Your task to perform on an android device: What's on my calendar tomorrow? Image 0: 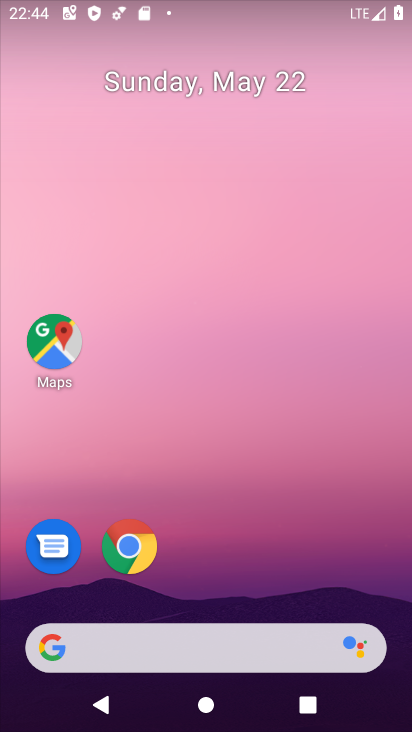
Step 0: drag from (256, 306) to (281, 72)
Your task to perform on an android device: What's on my calendar tomorrow? Image 1: 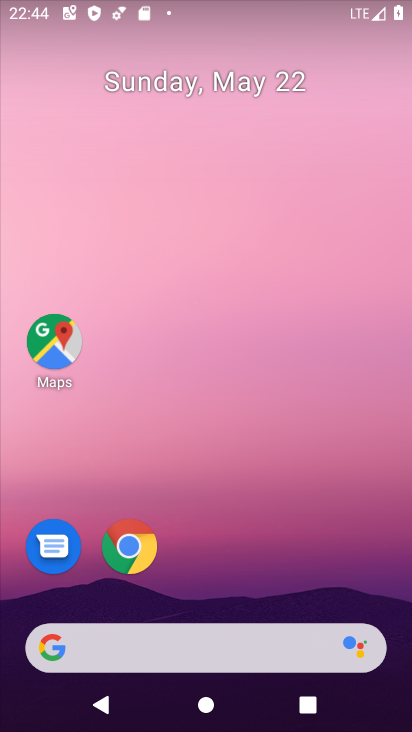
Step 1: drag from (193, 605) to (199, 151)
Your task to perform on an android device: What's on my calendar tomorrow? Image 2: 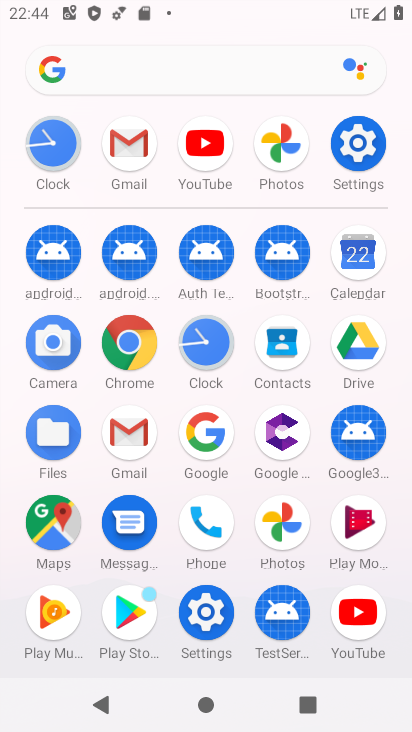
Step 2: click (355, 264)
Your task to perform on an android device: What's on my calendar tomorrow? Image 3: 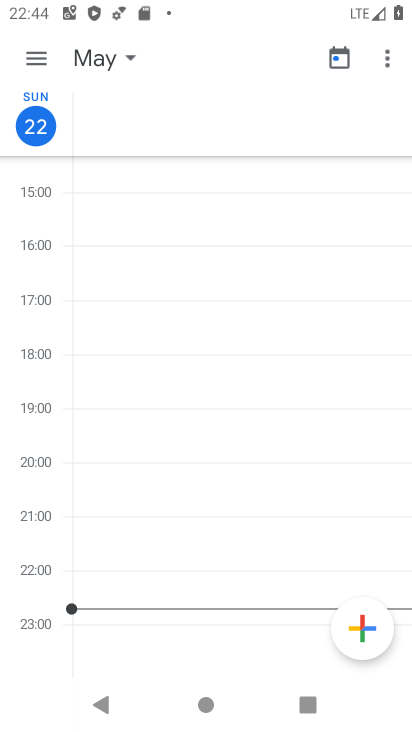
Step 3: click (112, 63)
Your task to perform on an android device: What's on my calendar tomorrow? Image 4: 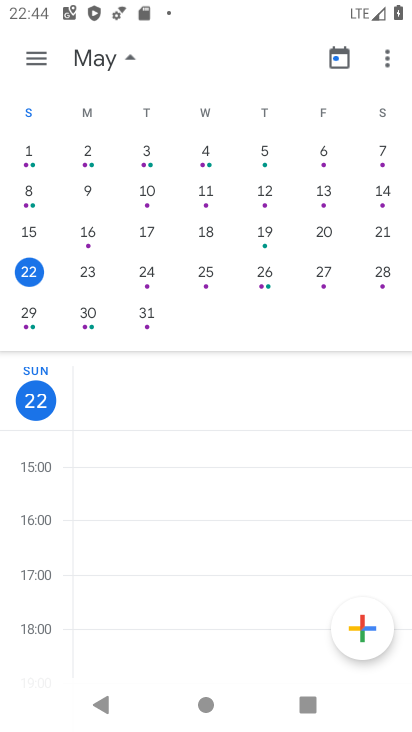
Step 4: click (83, 276)
Your task to perform on an android device: What's on my calendar tomorrow? Image 5: 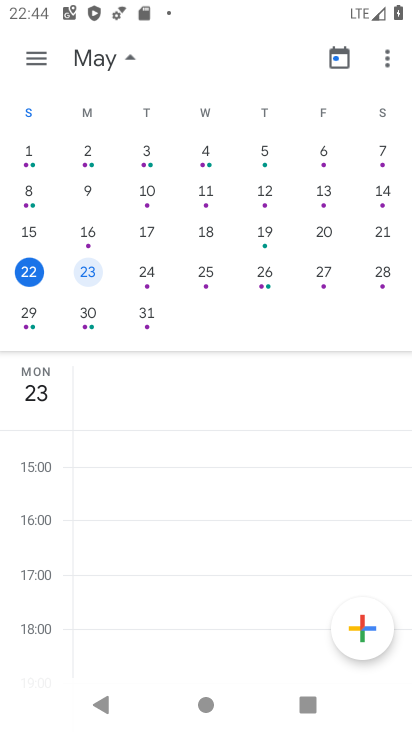
Step 5: task complete